Your task to perform on an android device: turn on priority inbox in the gmail app Image 0: 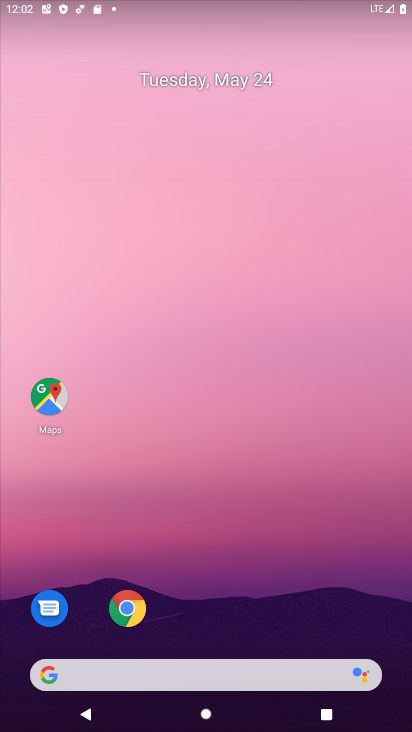
Step 0: press home button
Your task to perform on an android device: turn on priority inbox in the gmail app Image 1: 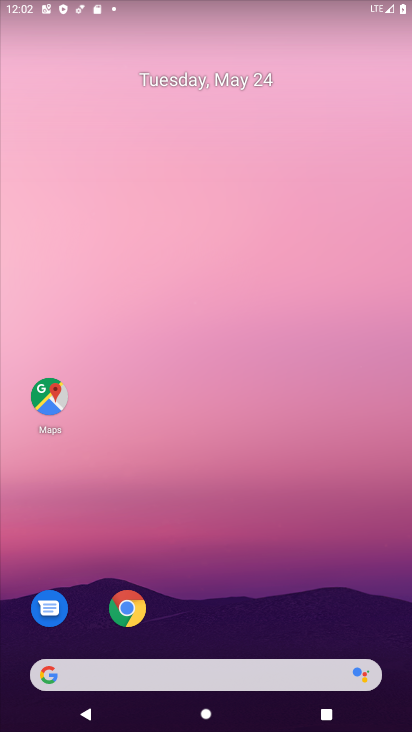
Step 1: drag from (222, 644) to (263, 63)
Your task to perform on an android device: turn on priority inbox in the gmail app Image 2: 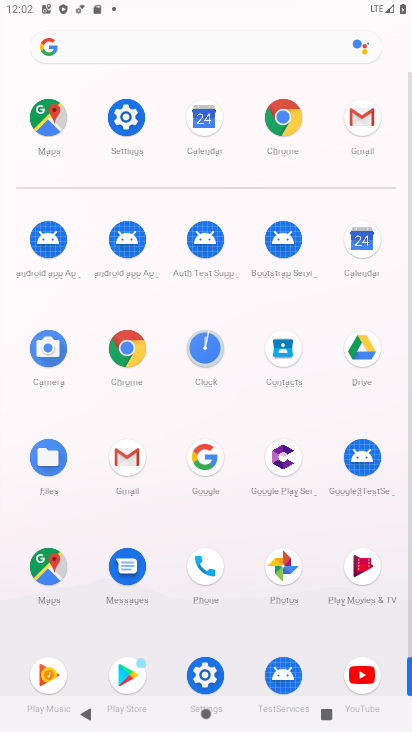
Step 2: click (358, 106)
Your task to perform on an android device: turn on priority inbox in the gmail app Image 3: 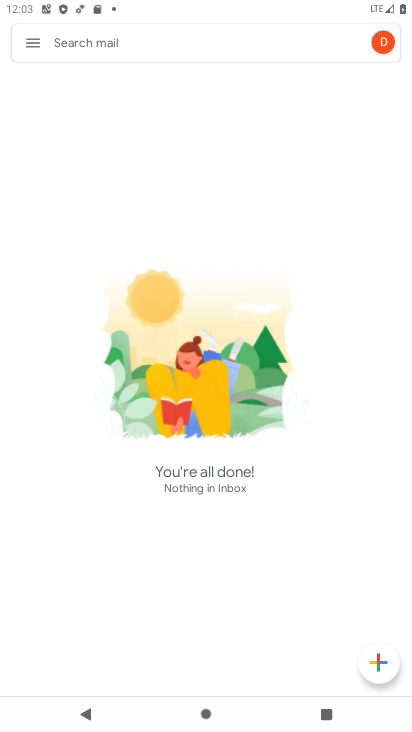
Step 3: click (35, 37)
Your task to perform on an android device: turn on priority inbox in the gmail app Image 4: 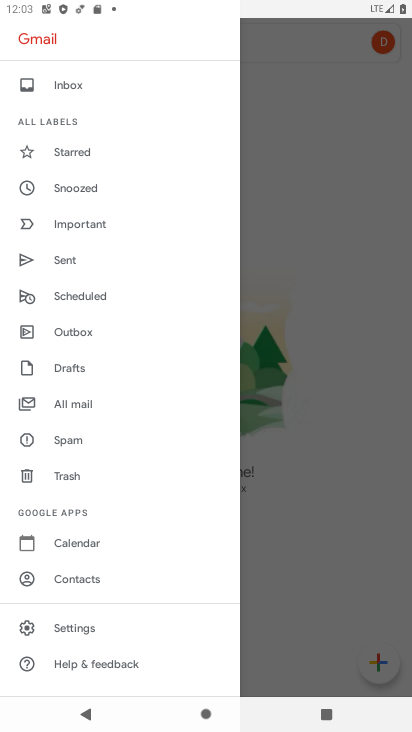
Step 4: click (103, 622)
Your task to perform on an android device: turn on priority inbox in the gmail app Image 5: 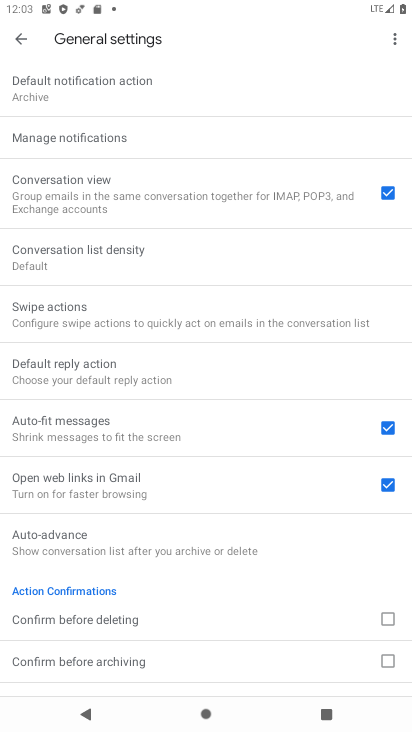
Step 5: click (21, 35)
Your task to perform on an android device: turn on priority inbox in the gmail app Image 6: 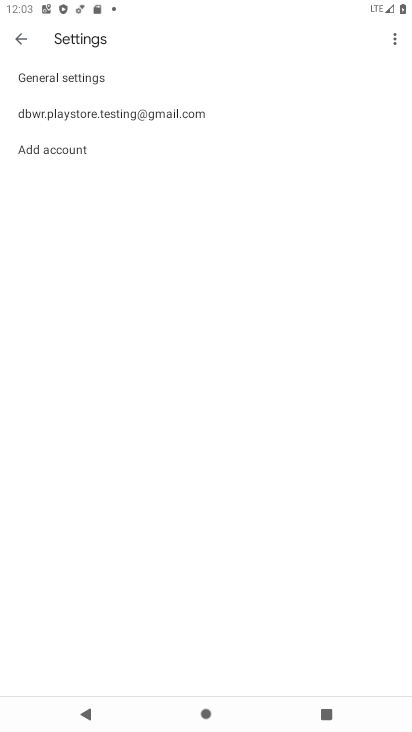
Step 6: click (209, 111)
Your task to perform on an android device: turn on priority inbox in the gmail app Image 7: 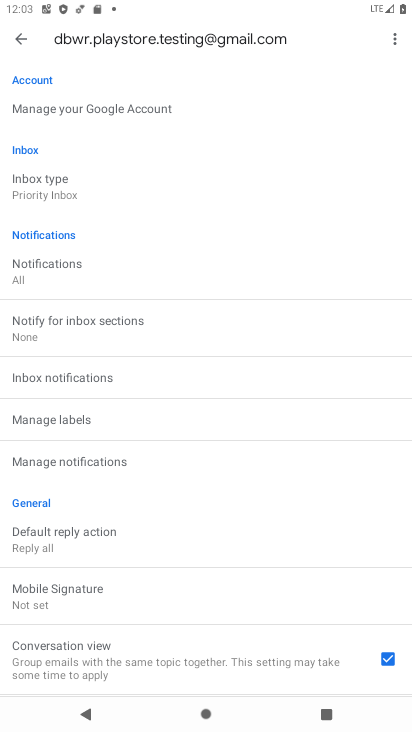
Step 7: click (74, 183)
Your task to perform on an android device: turn on priority inbox in the gmail app Image 8: 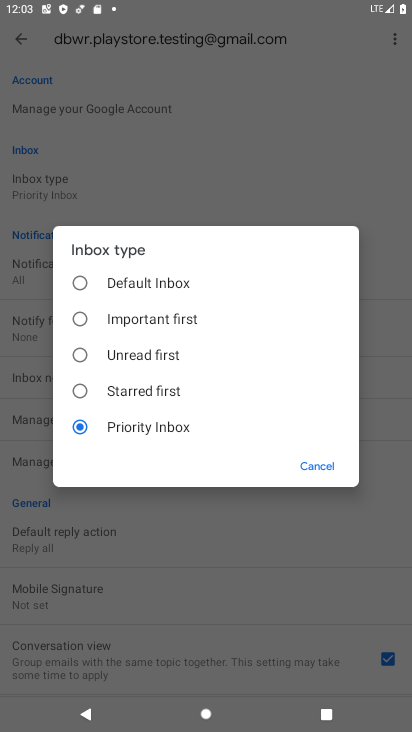
Step 8: click (77, 383)
Your task to perform on an android device: turn on priority inbox in the gmail app Image 9: 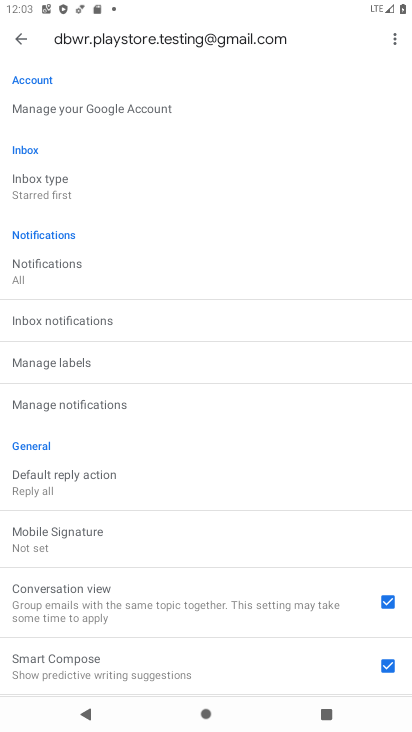
Step 9: task complete